Your task to perform on an android device: turn off sleep mode Image 0: 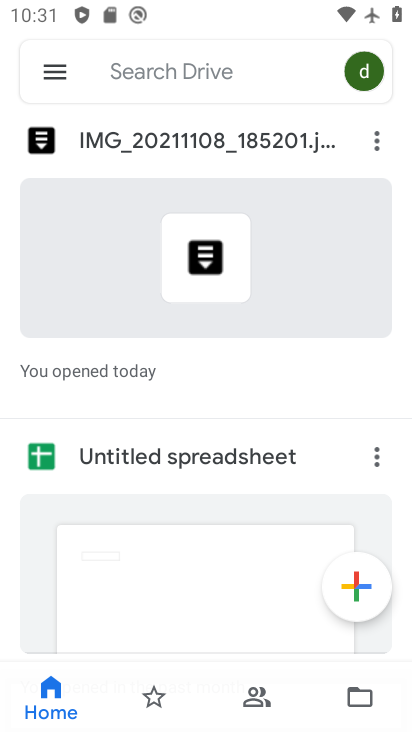
Step 0: press back button
Your task to perform on an android device: turn off sleep mode Image 1: 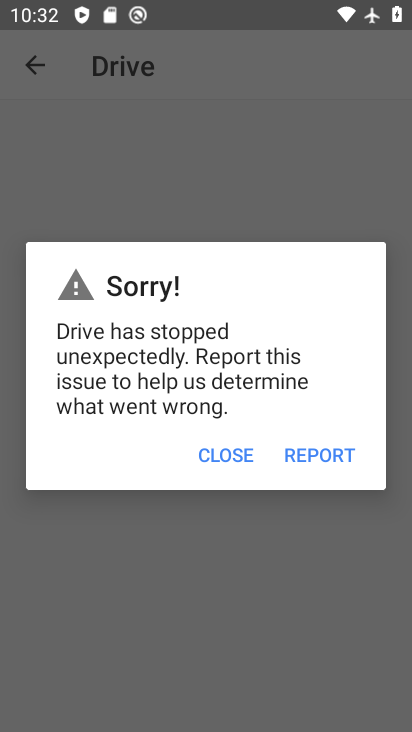
Step 1: press home button
Your task to perform on an android device: turn off sleep mode Image 2: 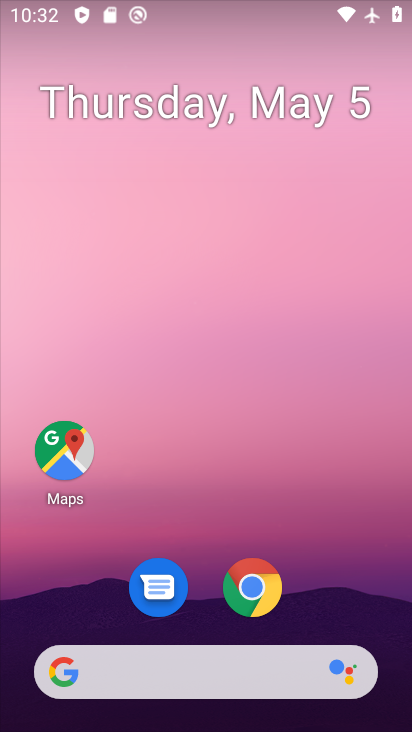
Step 2: drag from (325, 597) to (264, 13)
Your task to perform on an android device: turn off sleep mode Image 3: 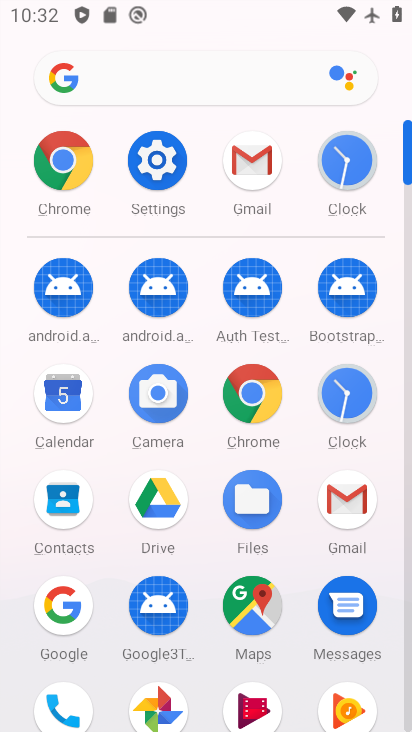
Step 3: click (154, 157)
Your task to perform on an android device: turn off sleep mode Image 4: 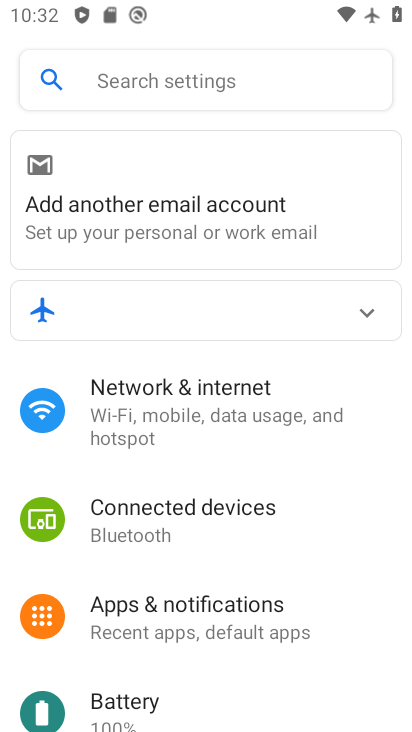
Step 4: drag from (325, 560) to (301, 92)
Your task to perform on an android device: turn off sleep mode Image 5: 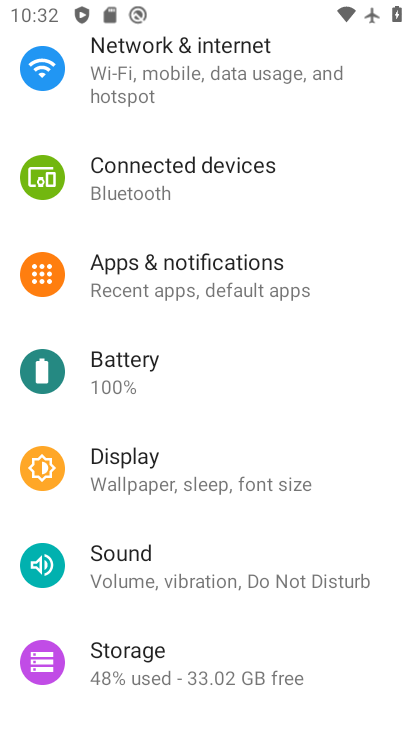
Step 5: click (254, 476)
Your task to perform on an android device: turn off sleep mode Image 6: 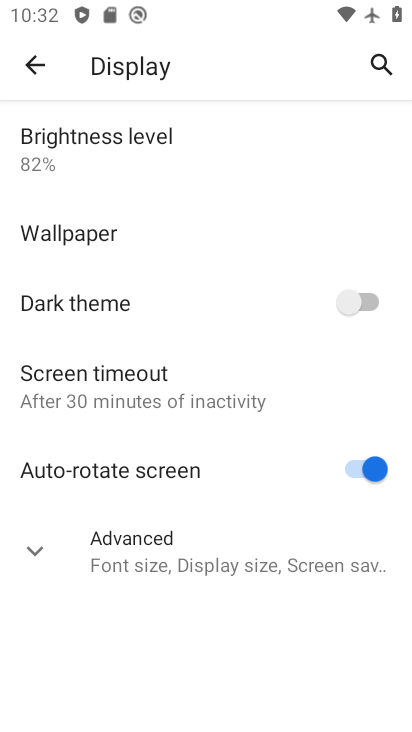
Step 6: click (42, 540)
Your task to perform on an android device: turn off sleep mode Image 7: 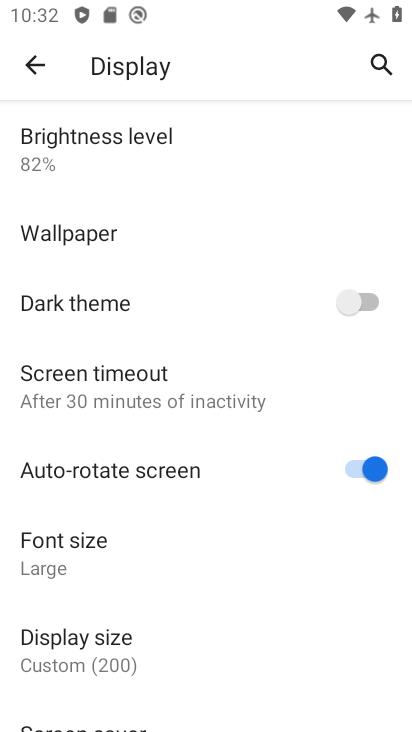
Step 7: task complete